Your task to perform on an android device: open app "Mercado Libre" (install if not already installed) Image 0: 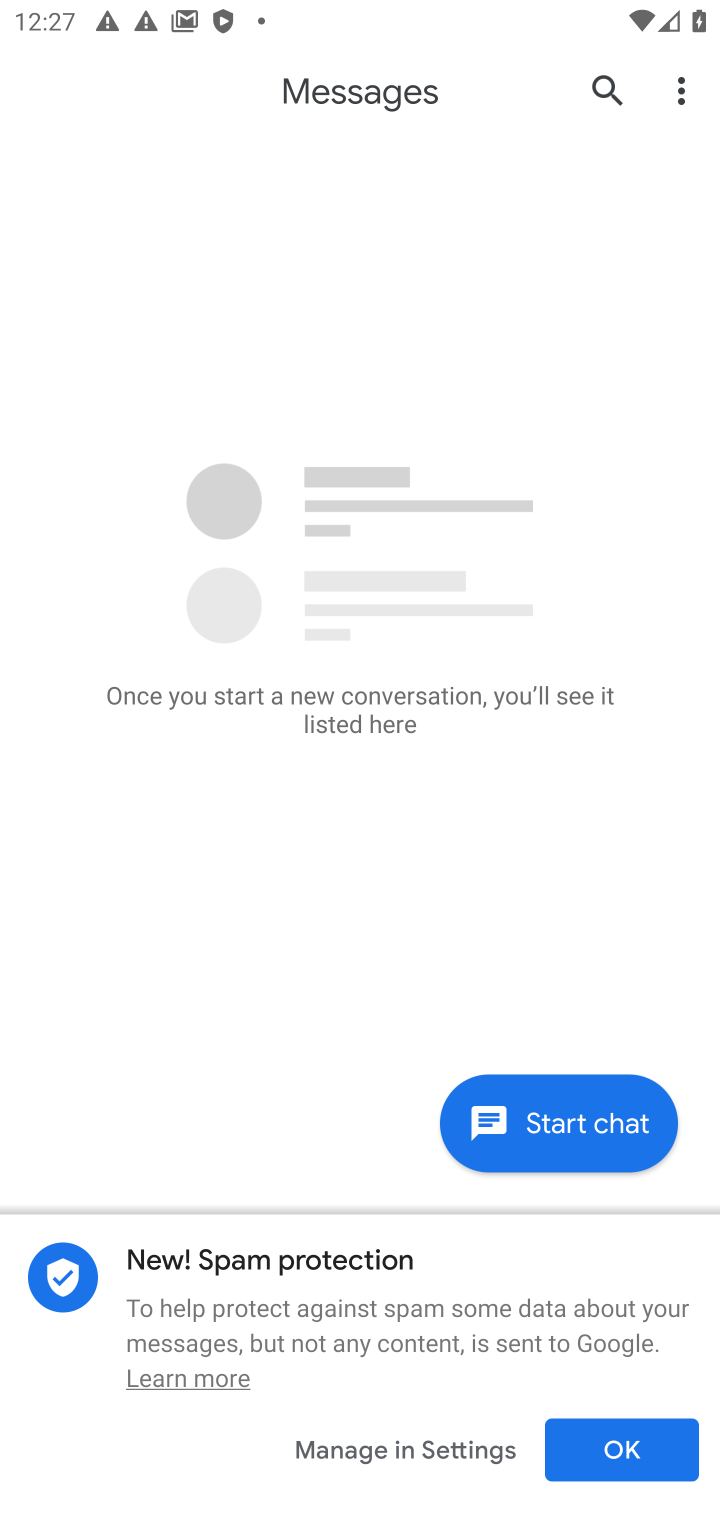
Step 0: press home button
Your task to perform on an android device: open app "Mercado Libre" (install if not already installed) Image 1: 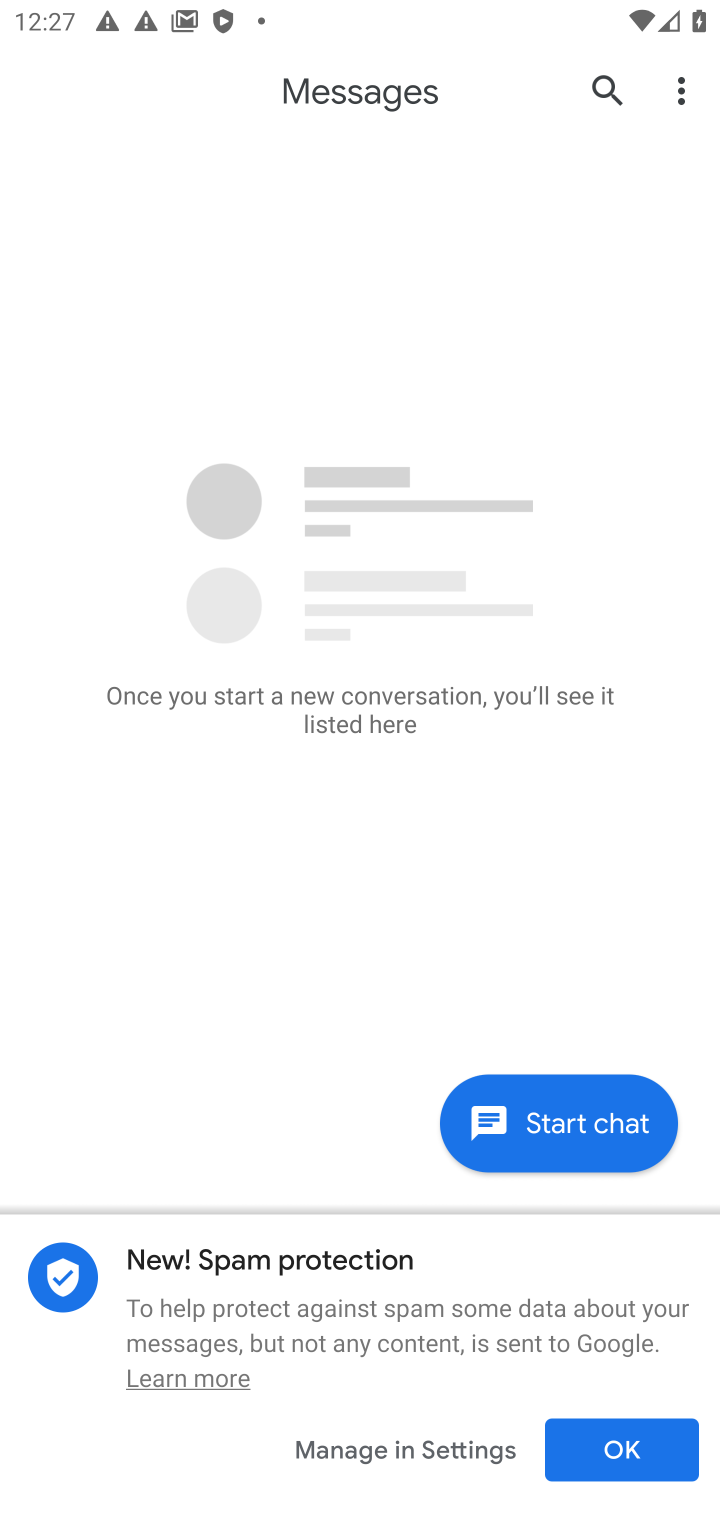
Step 1: press home button
Your task to perform on an android device: open app "Mercado Libre" (install if not already installed) Image 2: 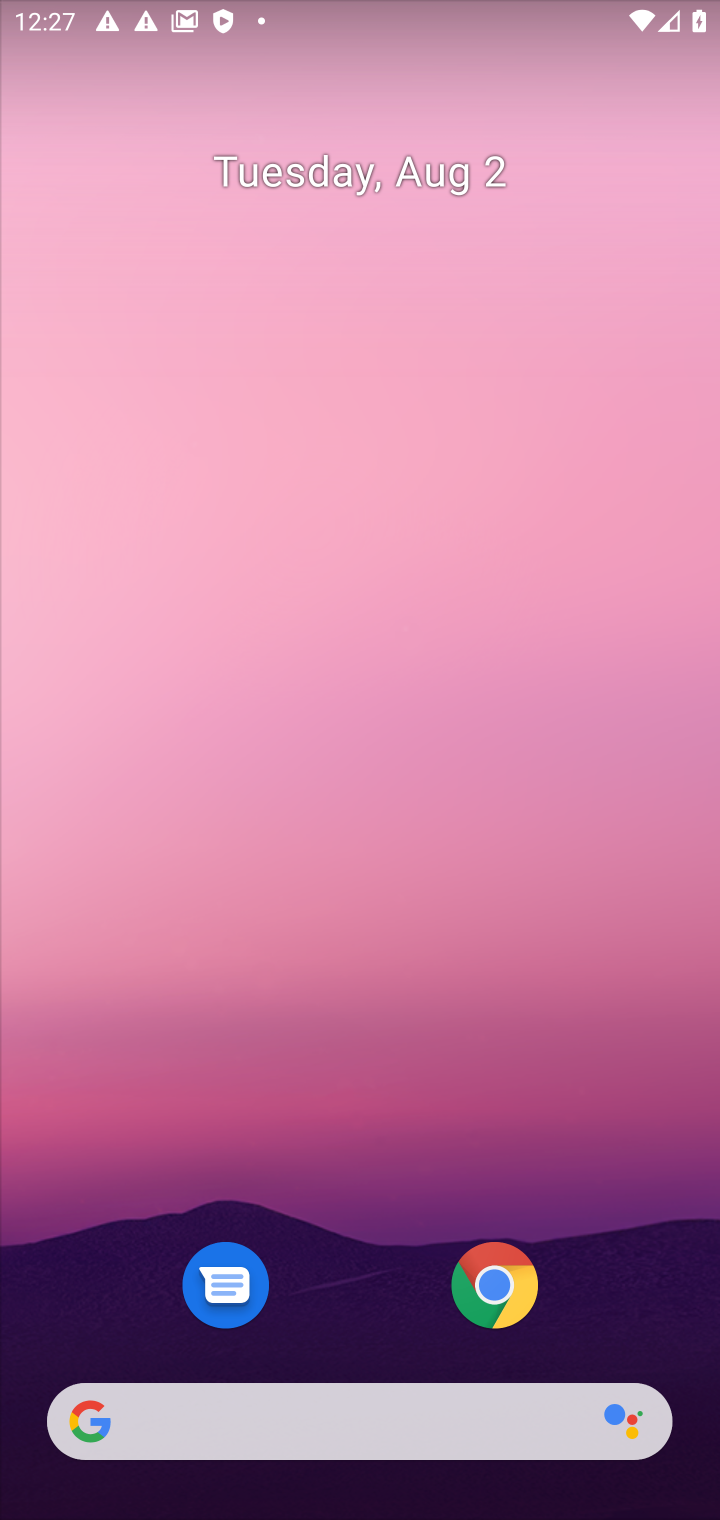
Step 2: drag from (380, 1301) to (411, 193)
Your task to perform on an android device: open app "Mercado Libre" (install if not already installed) Image 3: 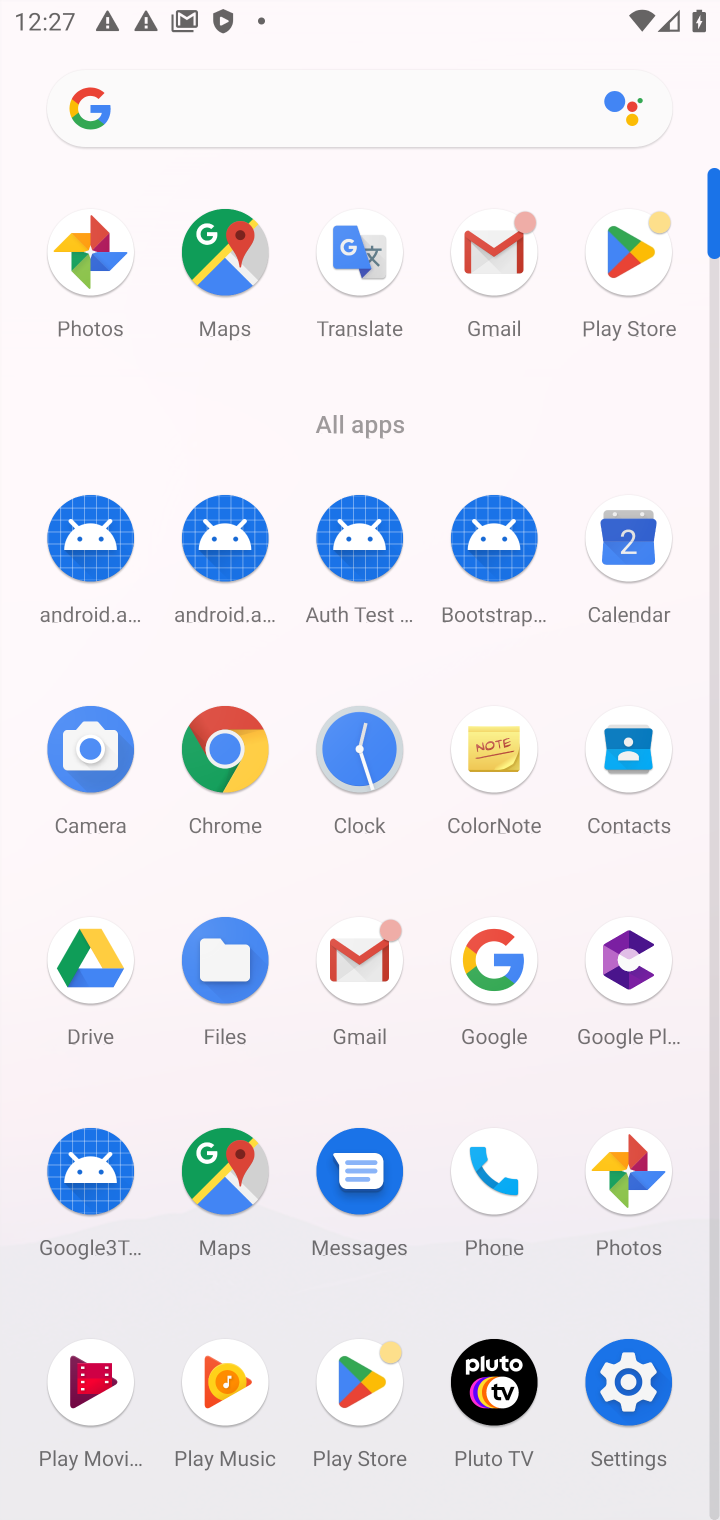
Step 3: click (367, 1381)
Your task to perform on an android device: open app "Mercado Libre" (install if not already installed) Image 4: 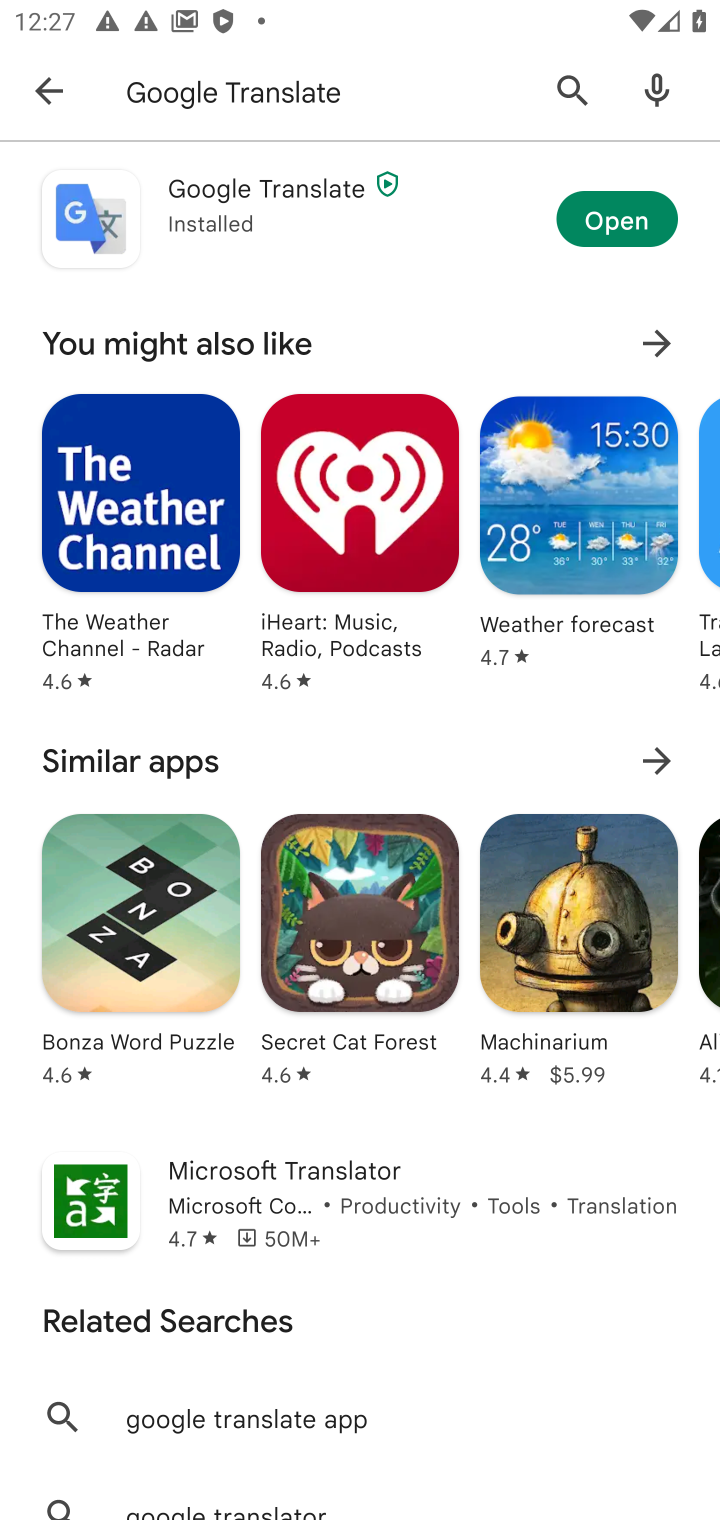
Step 4: click (461, 75)
Your task to perform on an android device: open app "Mercado Libre" (install if not already installed) Image 5: 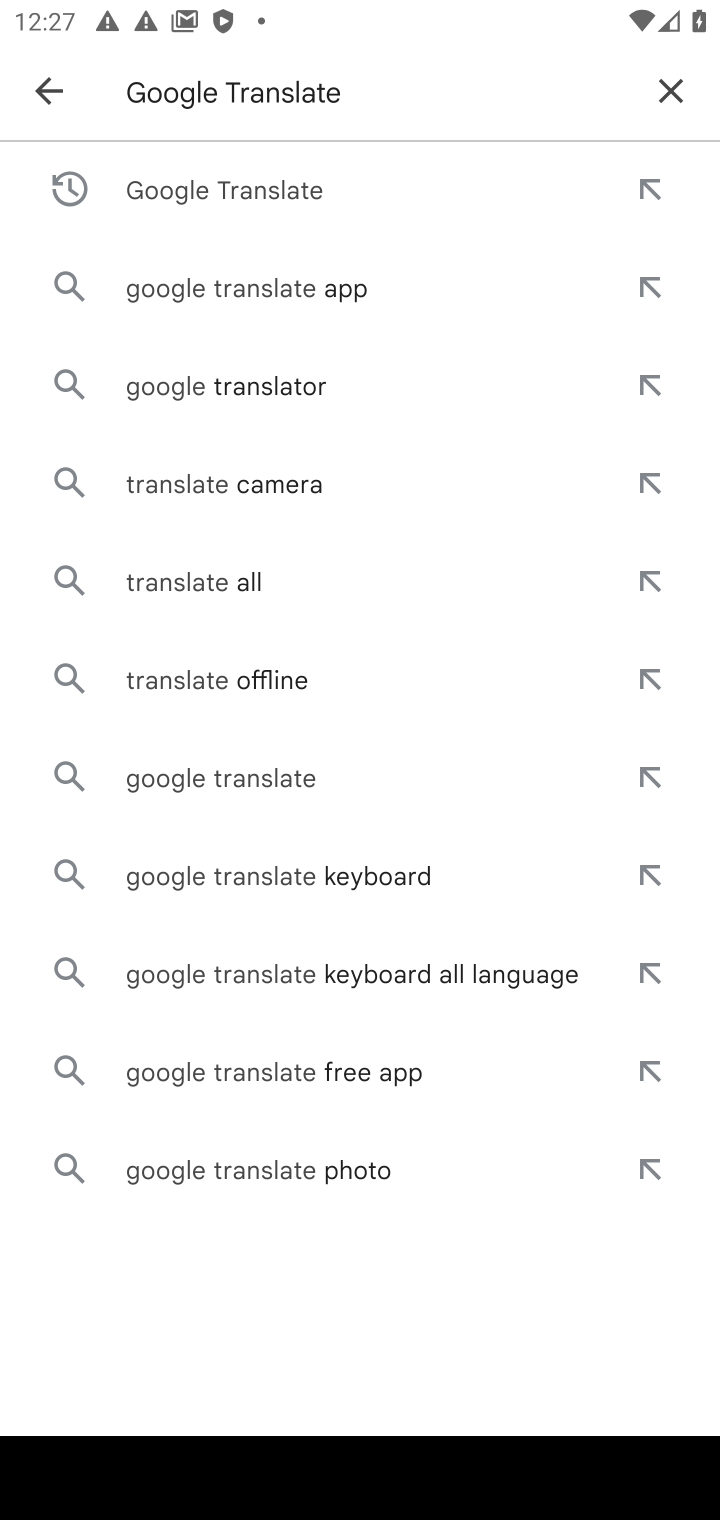
Step 5: click (676, 85)
Your task to perform on an android device: open app "Mercado Libre" (install if not already installed) Image 6: 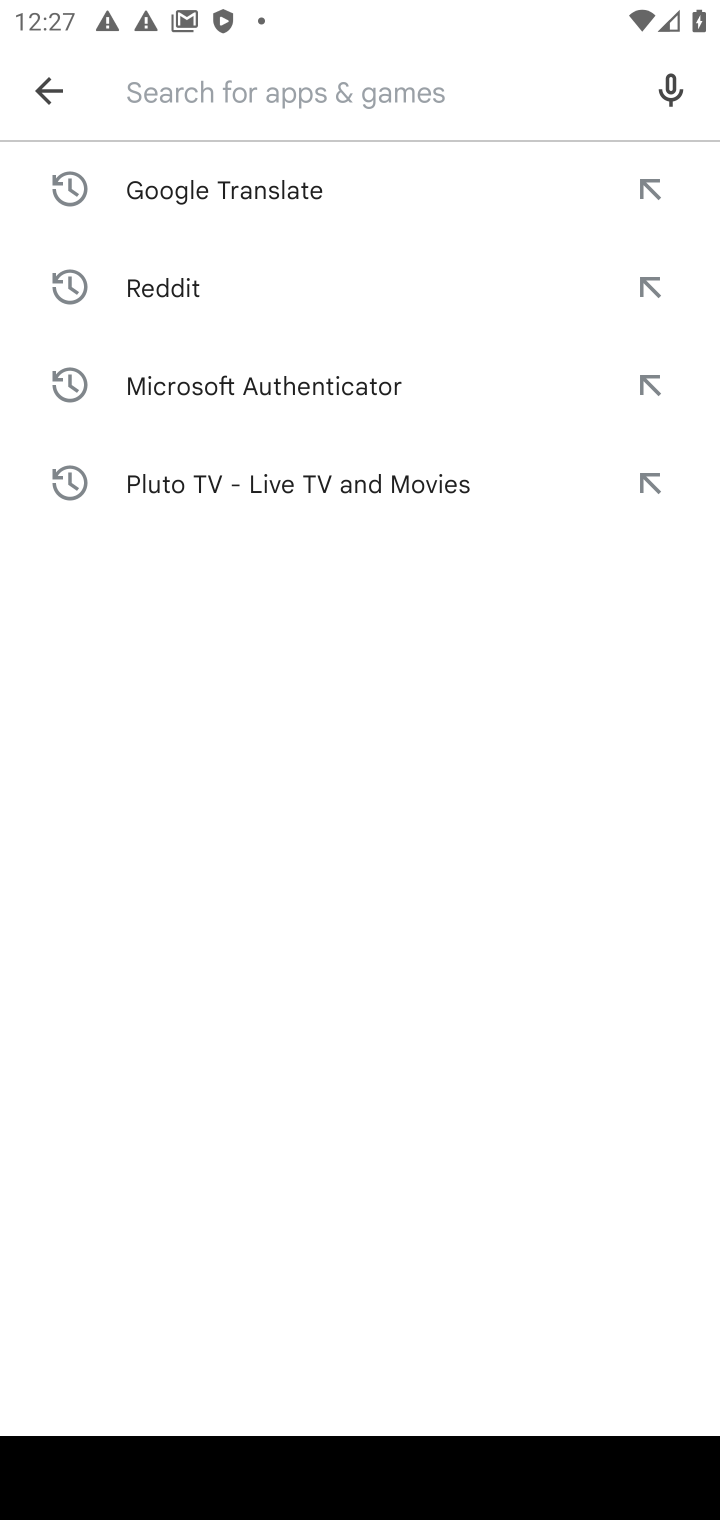
Step 6: type "Mercado Libre"
Your task to perform on an android device: open app "Mercado Libre" (install if not already installed) Image 7: 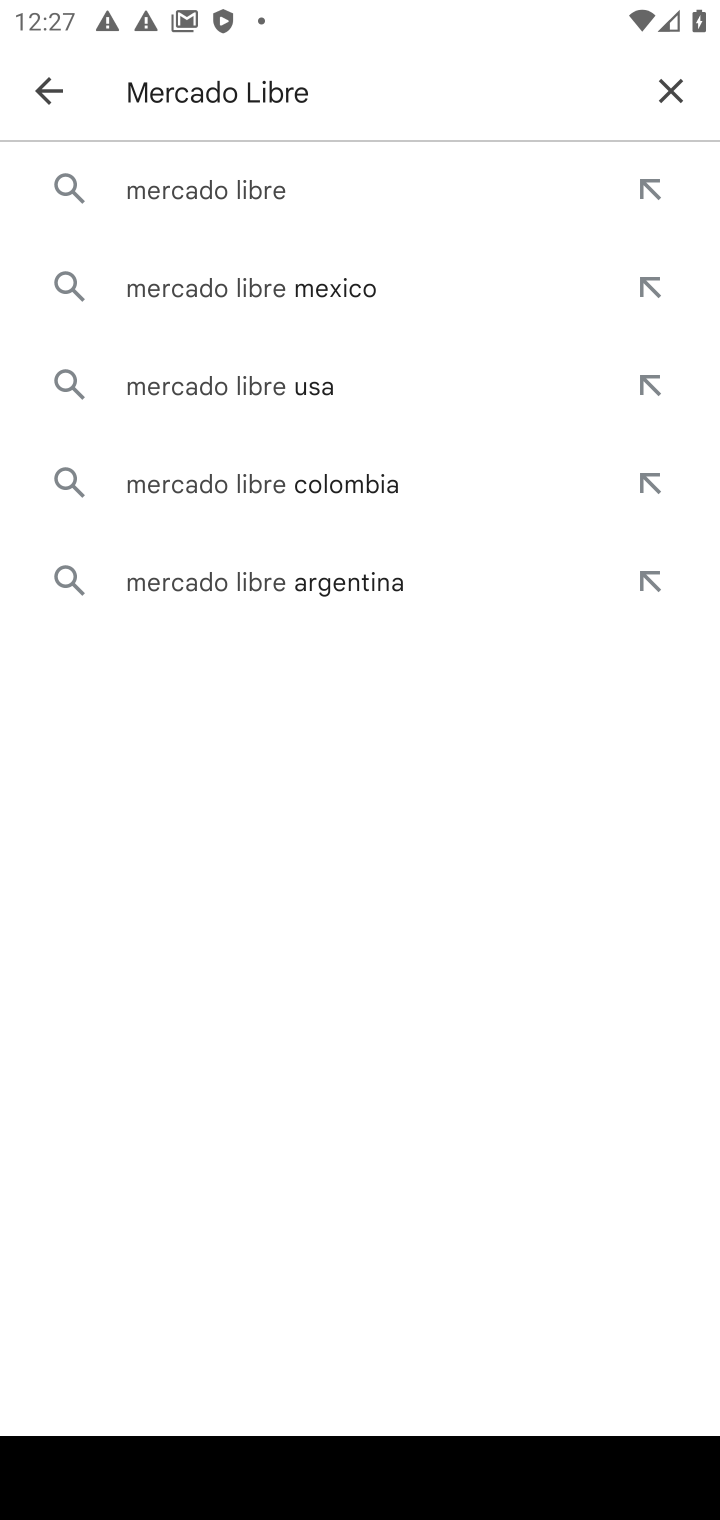
Step 7: press enter
Your task to perform on an android device: open app "Mercado Libre" (install if not already installed) Image 8: 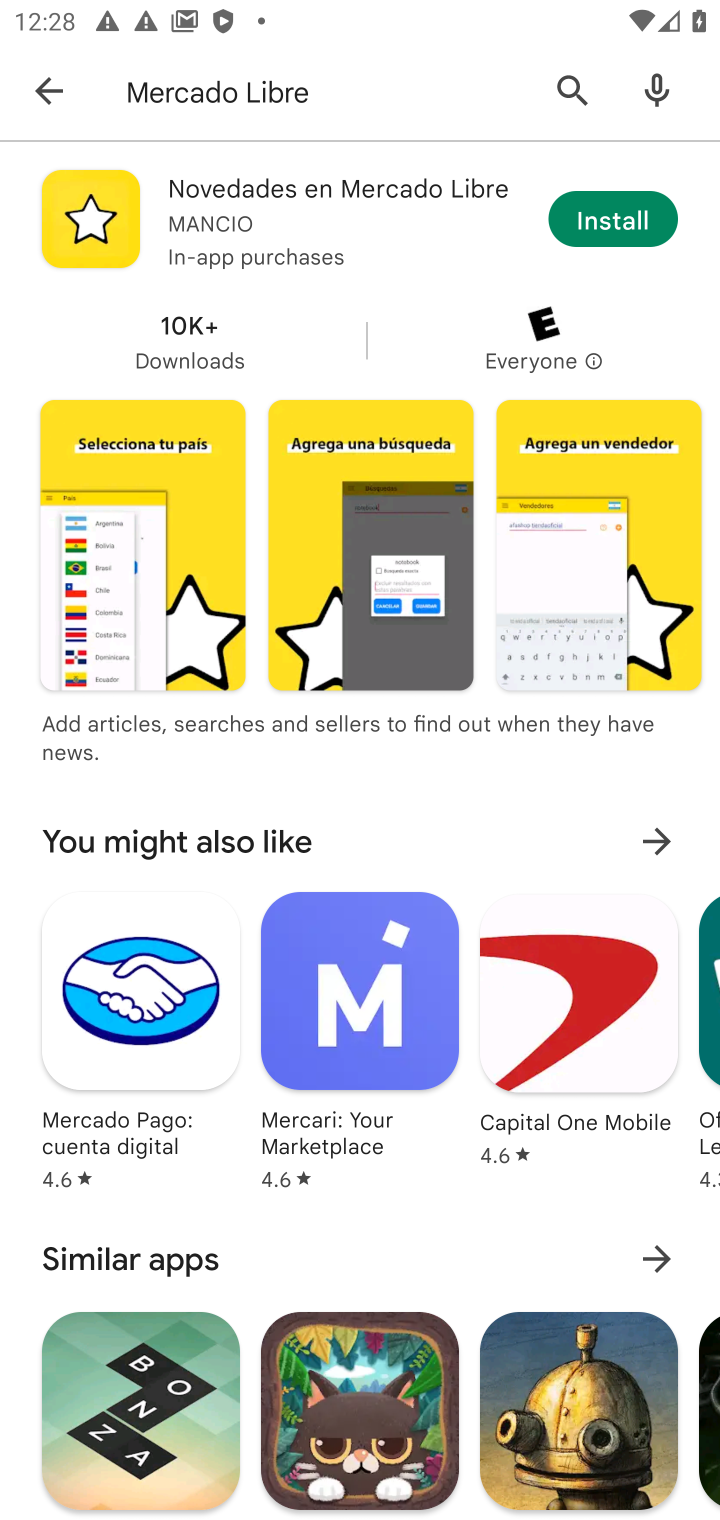
Step 8: press enter
Your task to perform on an android device: open app "Mercado Libre" (install if not already installed) Image 9: 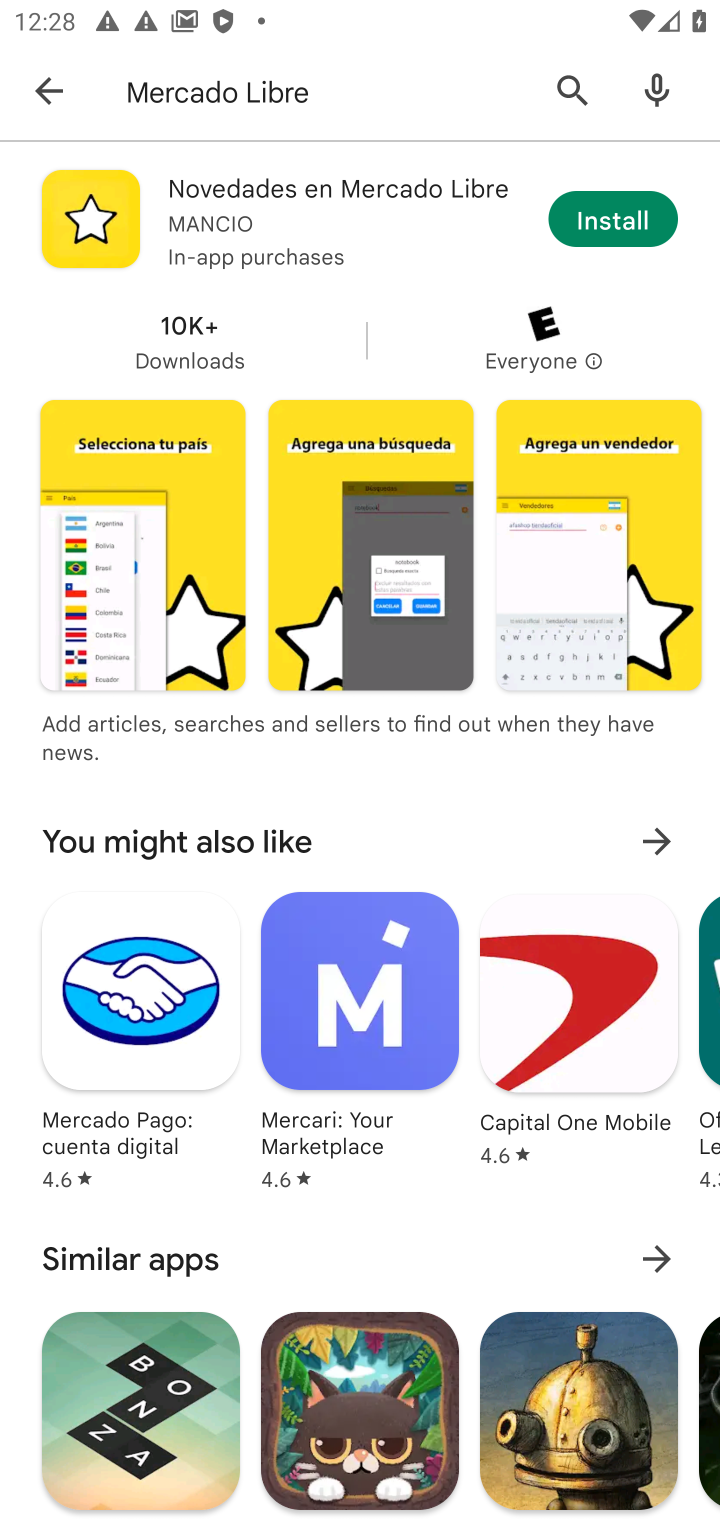
Step 9: click (351, 206)
Your task to perform on an android device: open app "Mercado Libre" (install if not already installed) Image 10: 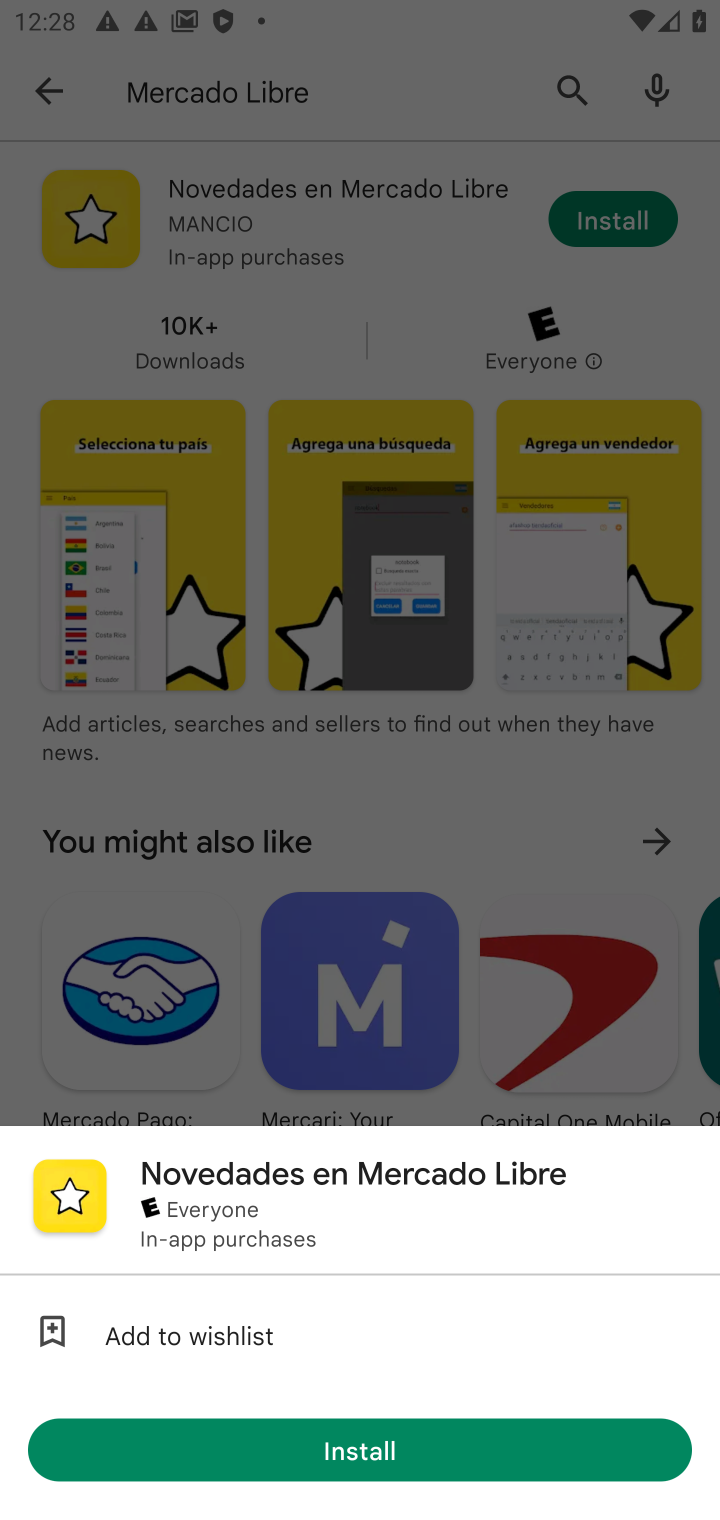
Step 10: click (392, 1459)
Your task to perform on an android device: open app "Mercado Libre" (install if not already installed) Image 11: 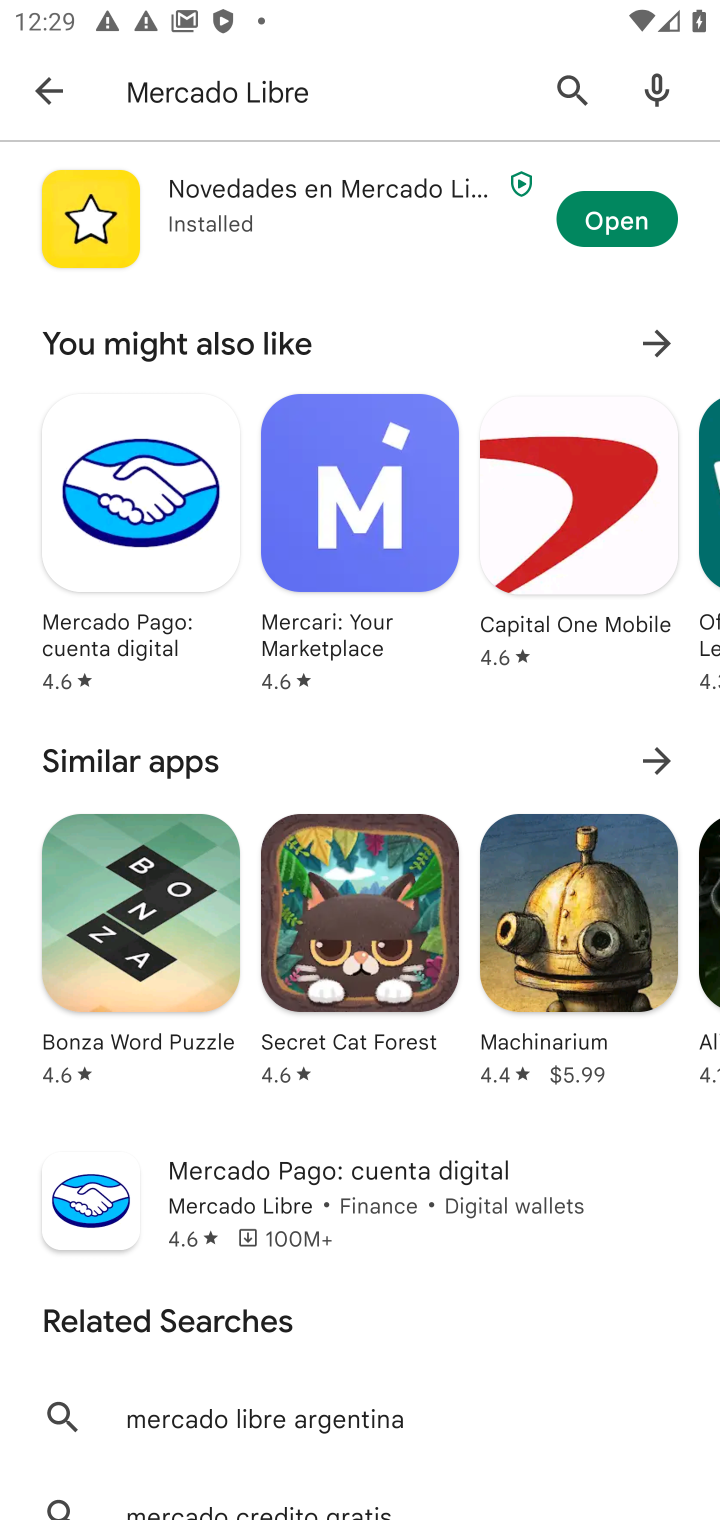
Step 11: click (615, 223)
Your task to perform on an android device: open app "Mercado Libre" (install if not already installed) Image 12: 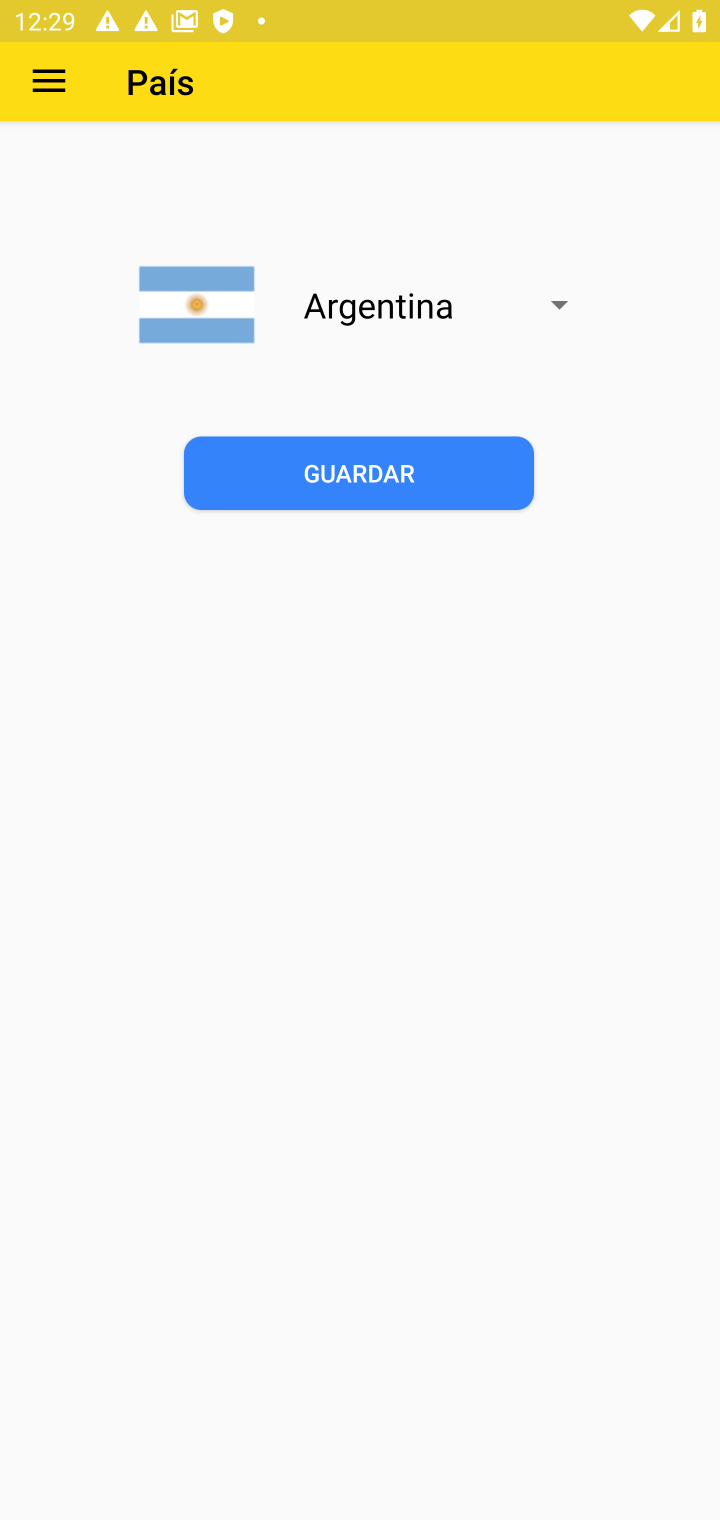
Step 12: task complete